Your task to perform on an android device: Search for the best rated headphones on Amazon Image 0: 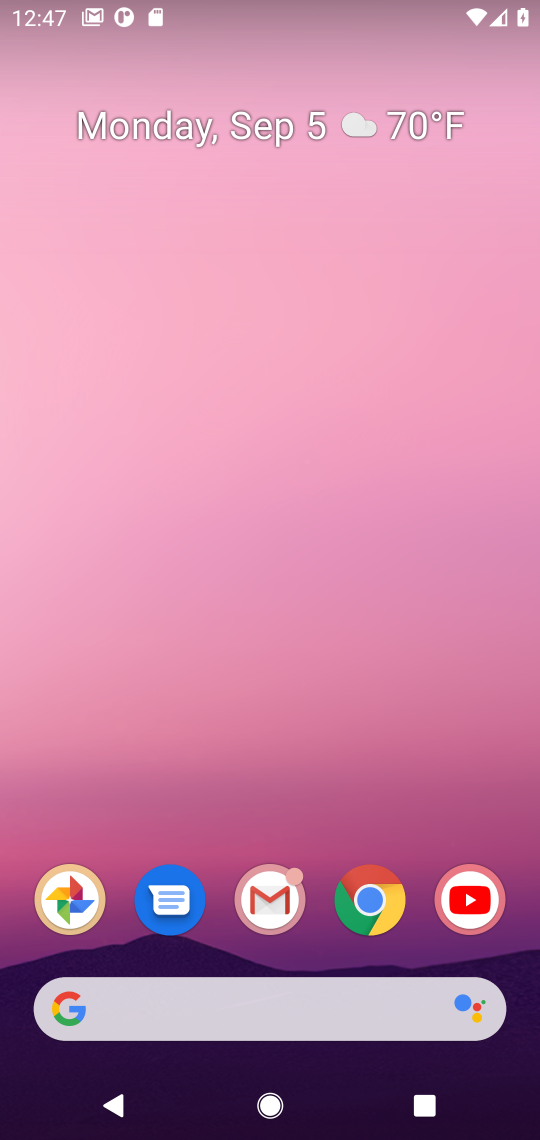
Step 0: drag from (286, 789) to (288, 124)
Your task to perform on an android device: Search for the best rated headphones on Amazon Image 1: 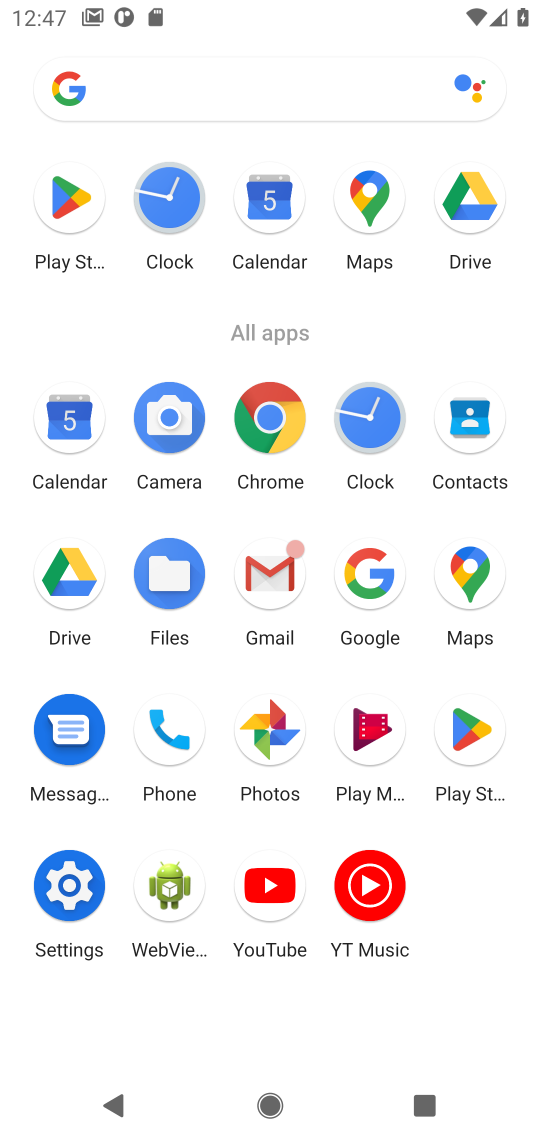
Step 1: click (368, 581)
Your task to perform on an android device: Search for the best rated headphones on Amazon Image 2: 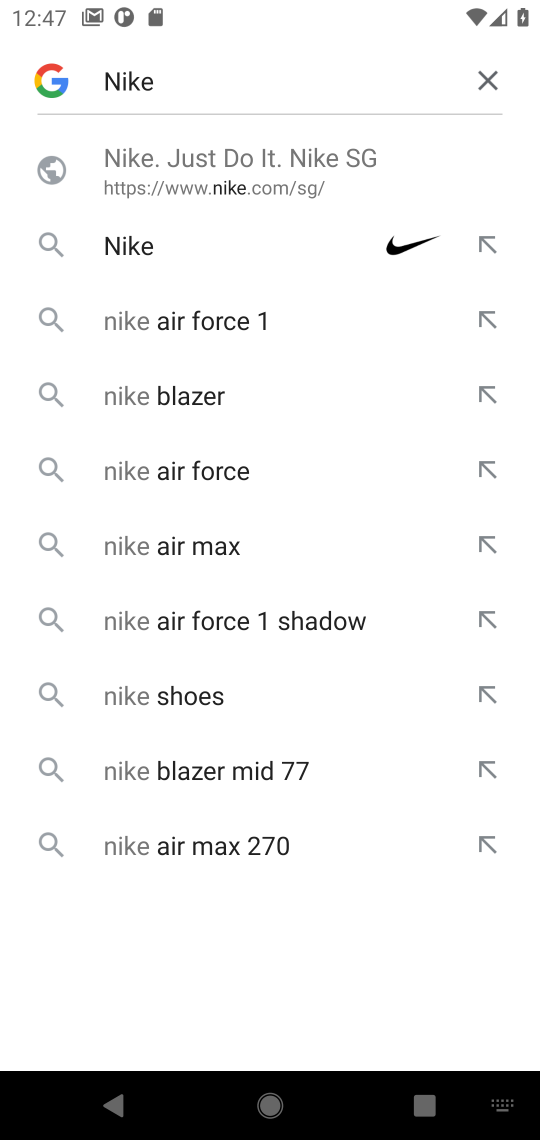
Step 2: click (487, 69)
Your task to perform on an android device: Search for the best rated headphones on Amazon Image 3: 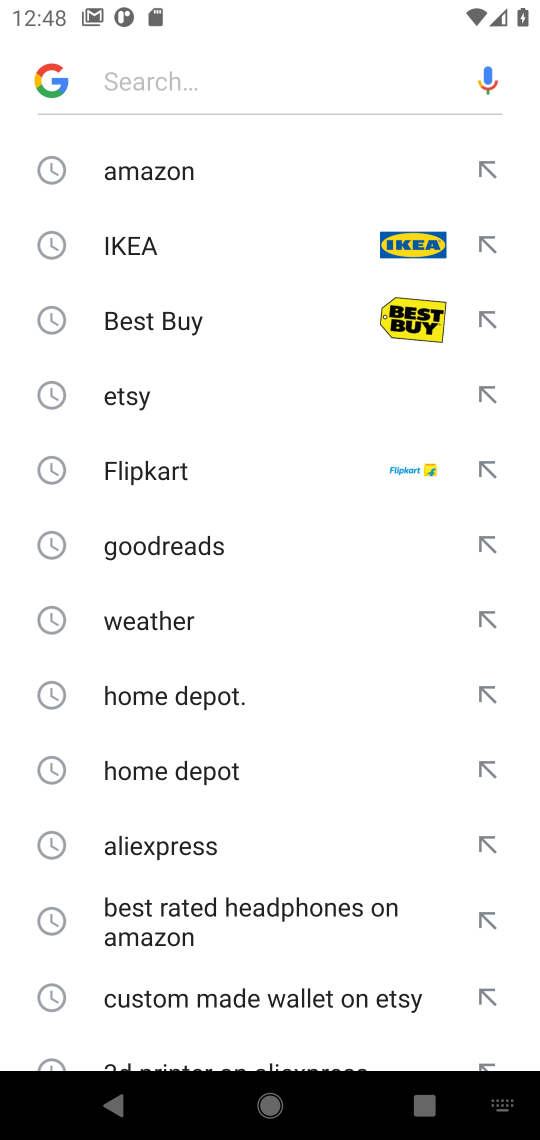
Step 3: click (151, 170)
Your task to perform on an android device: Search for the best rated headphones on Amazon Image 4: 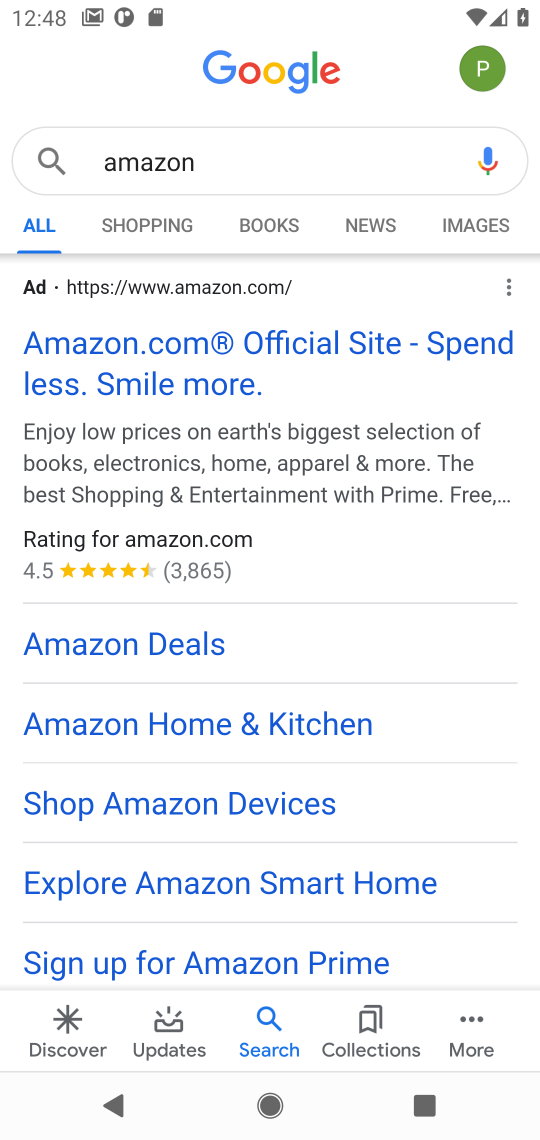
Step 4: click (81, 366)
Your task to perform on an android device: Search for the best rated headphones on Amazon Image 5: 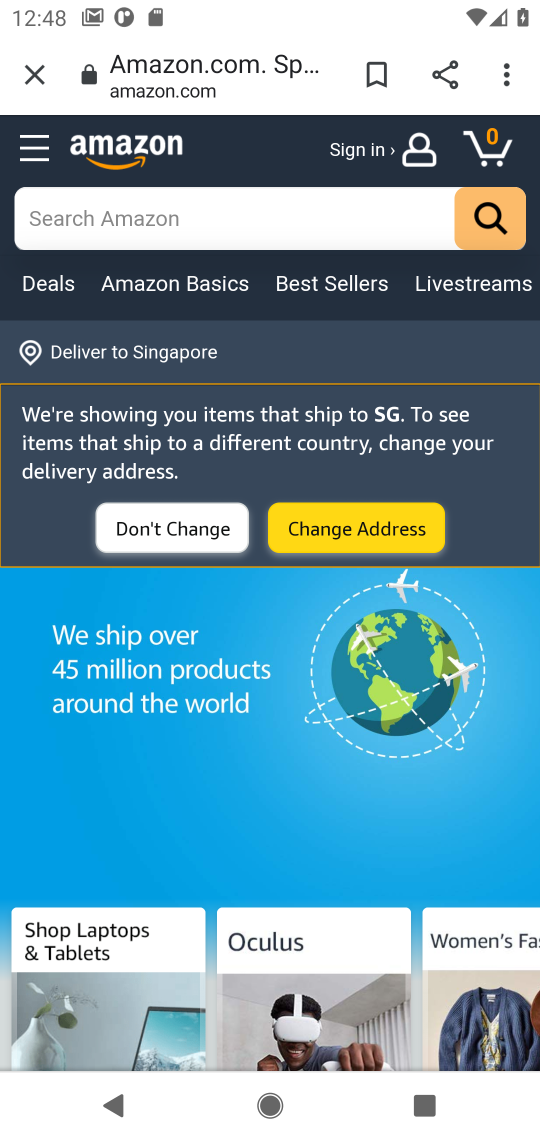
Step 5: click (149, 211)
Your task to perform on an android device: Search for the best rated headphones on Amazon Image 6: 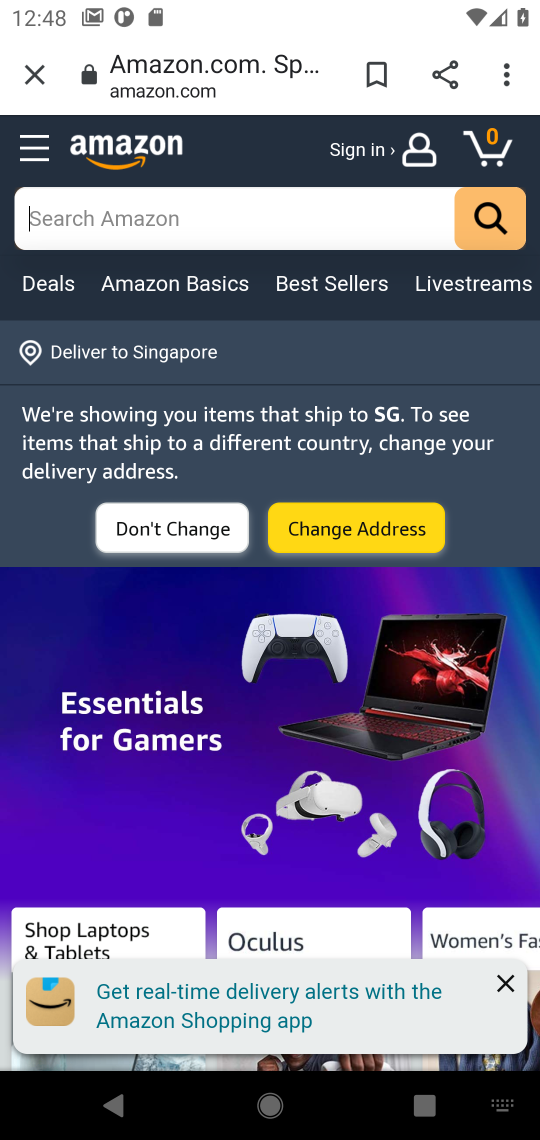
Step 6: type "headphones"
Your task to perform on an android device: Search for the best rated headphones on Amazon Image 7: 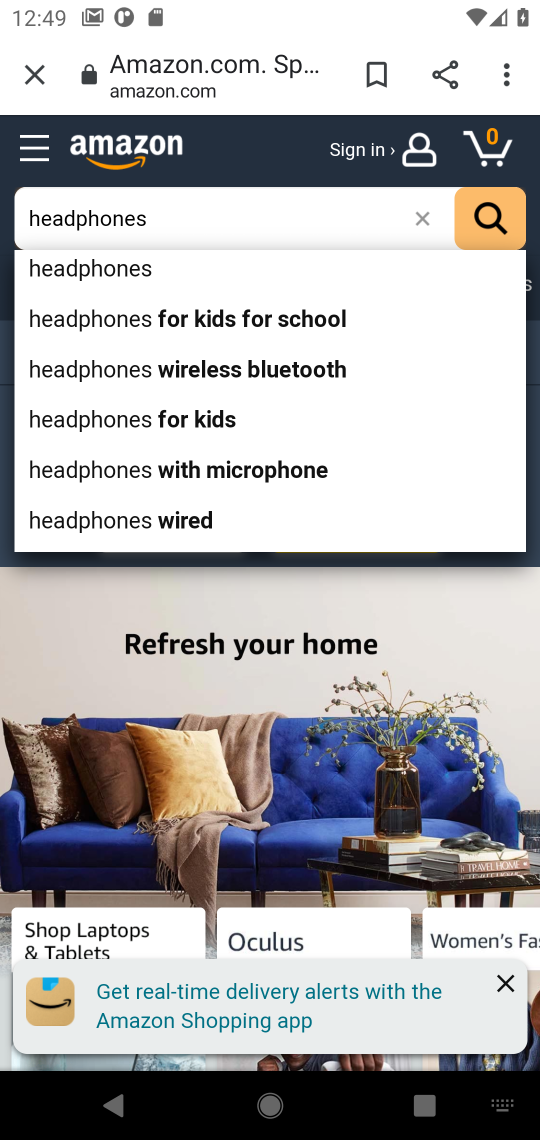
Step 7: click (141, 269)
Your task to perform on an android device: Search for the best rated headphones on Amazon Image 8: 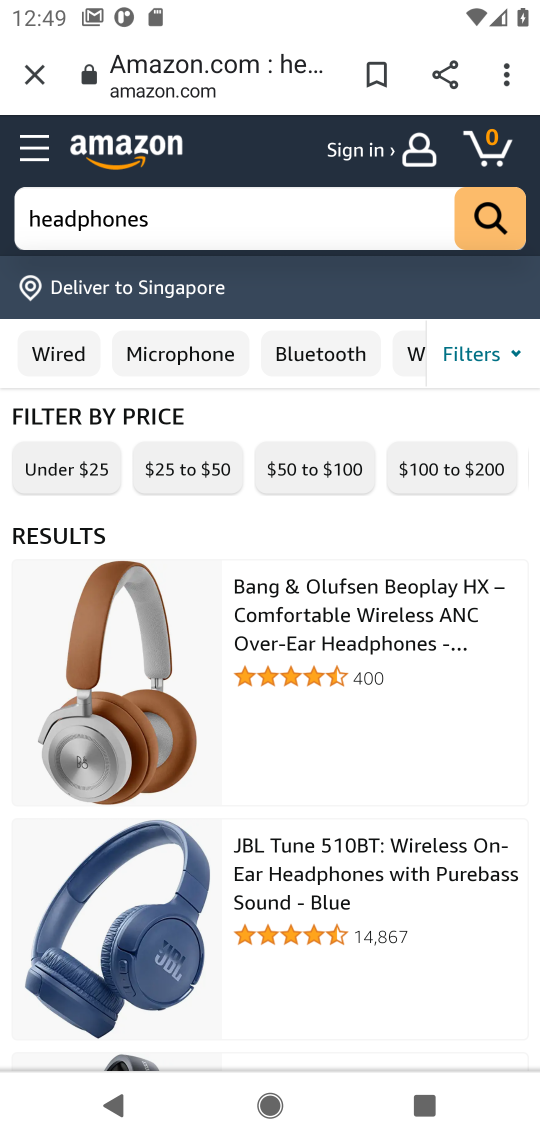
Step 8: task complete